Your task to perform on an android device: Open maps Image 0: 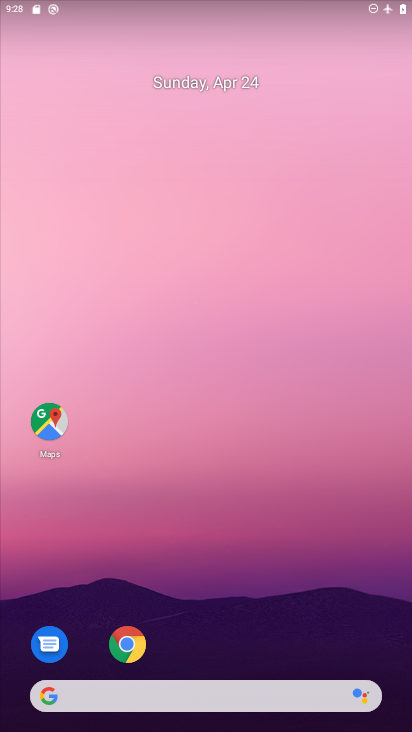
Step 0: drag from (219, 674) to (376, 0)
Your task to perform on an android device: Open maps Image 1: 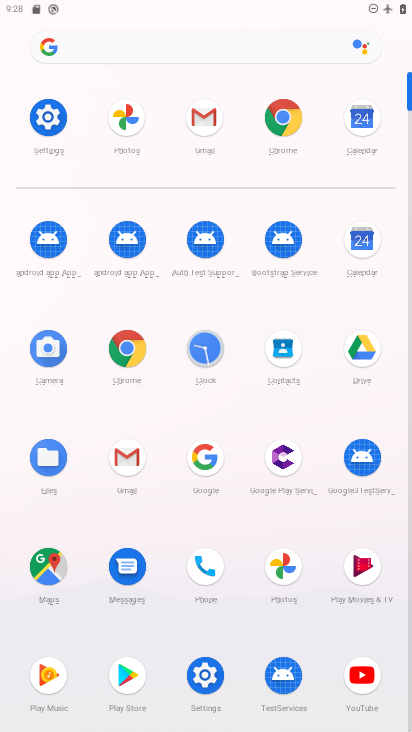
Step 1: click (39, 573)
Your task to perform on an android device: Open maps Image 2: 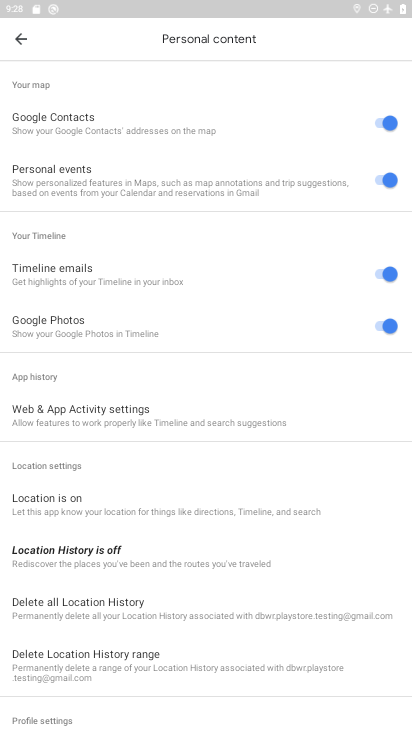
Step 2: click (18, 33)
Your task to perform on an android device: Open maps Image 3: 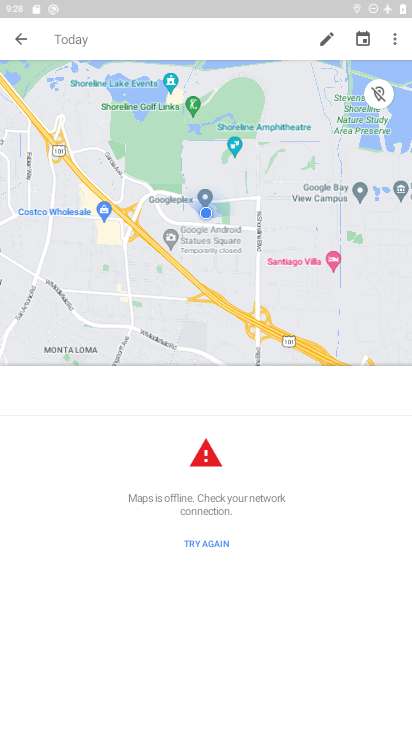
Step 3: task complete